Your task to perform on an android device: Show me popular videos on Youtube Image 0: 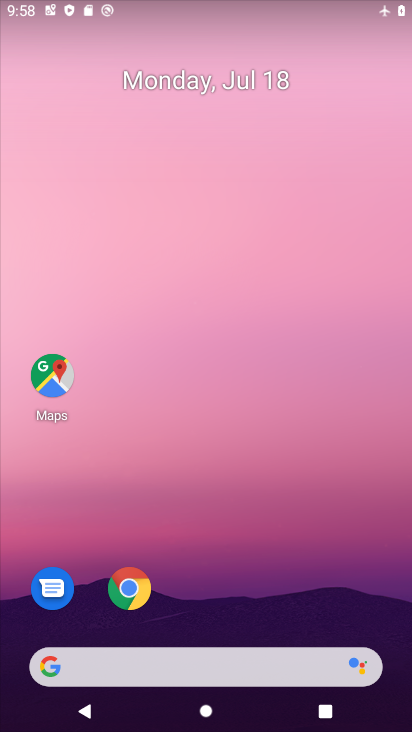
Step 0: drag from (230, 729) to (228, 69)
Your task to perform on an android device: Show me popular videos on Youtube Image 1: 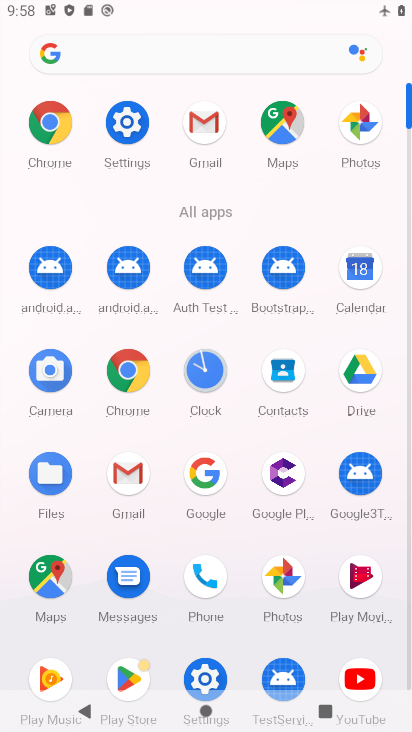
Step 1: click (131, 673)
Your task to perform on an android device: Show me popular videos on Youtube Image 2: 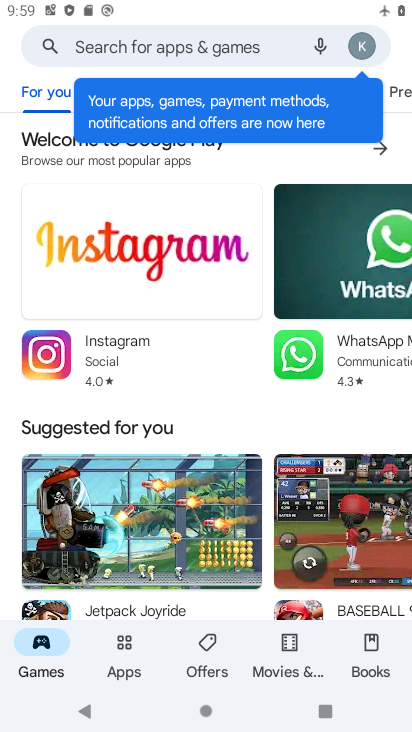
Step 2: drag from (230, 588) to (239, 276)
Your task to perform on an android device: Show me popular videos on Youtube Image 3: 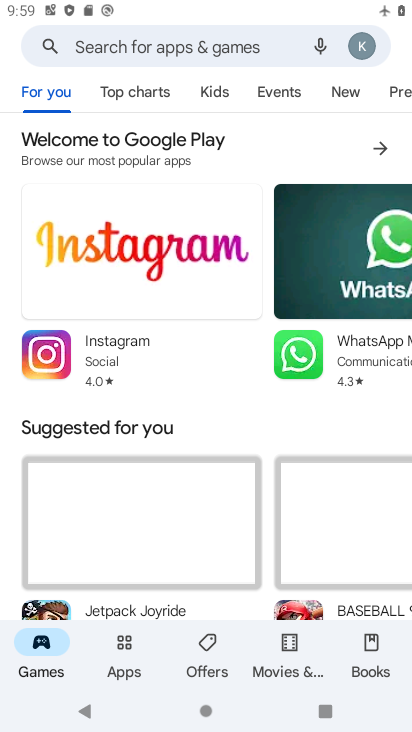
Step 3: drag from (242, 586) to (247, 163)
Your task to perform on an android device: Show me popular videos on Youtube Image 4: 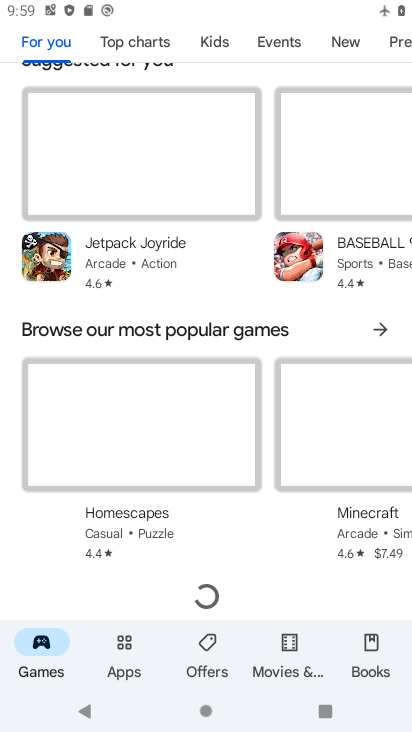
Step 4: click (382, 325)
Your task to perform on an android device: Show me popular videos on Youtube Image 5: 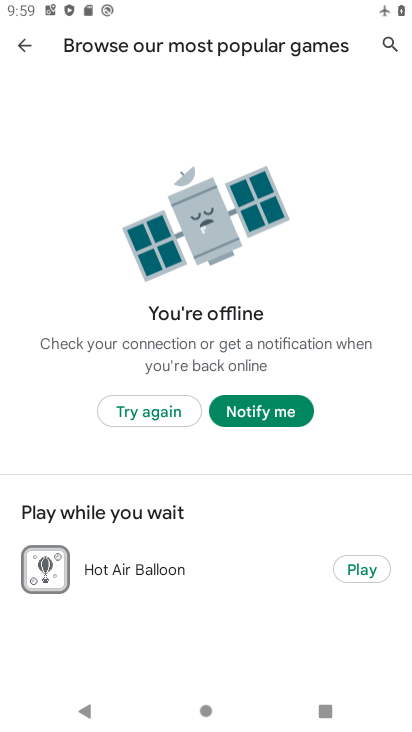
Step 5: task complete